Your task to perform on an android device: Go to location settings Image 0: 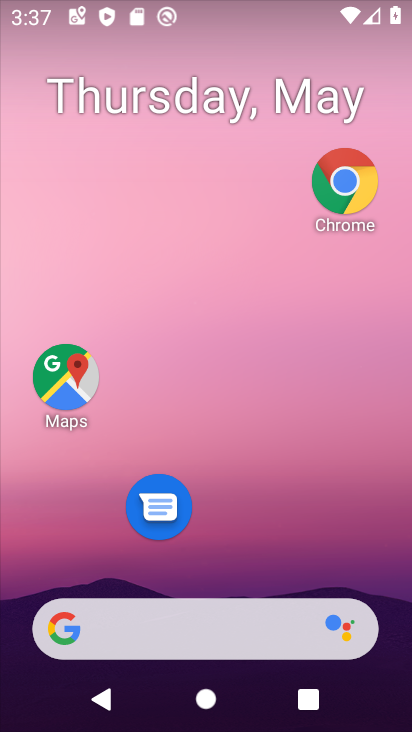
Step 0: drag from (251, 567) to (260, 130)
Your task to perform on an android device: Go to location settings Image 1: 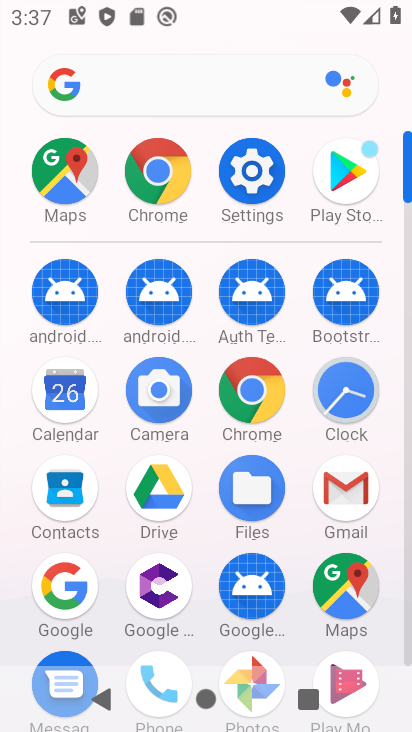
Step 1: click (248, 167)
Your task to perform on an android device: Go to location settings Image 2: 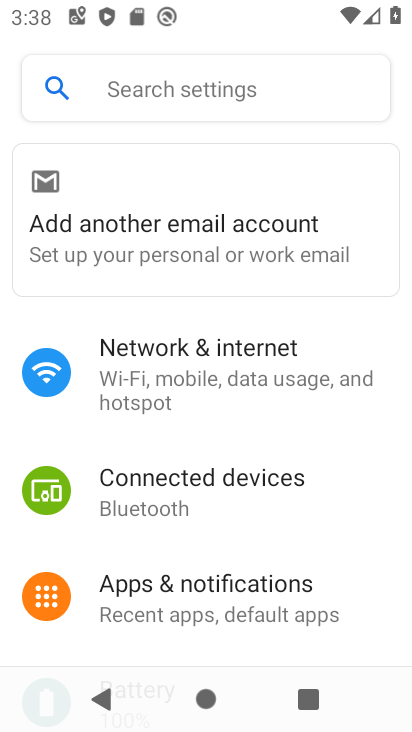
Step 2: drag from (321, 576) to (336, 177)
Your task to perform on an android device: Go to location settings Image 3: 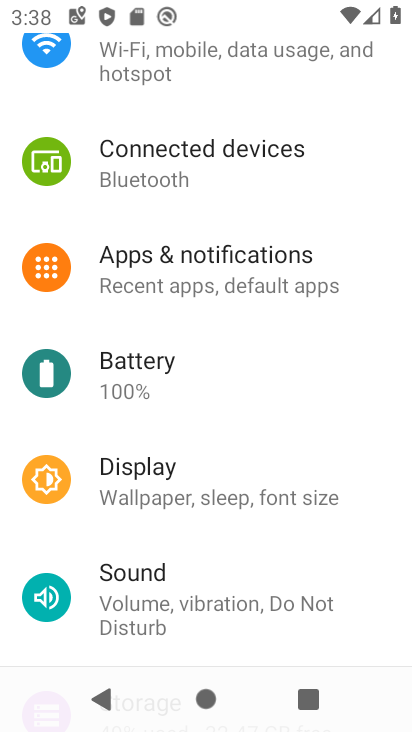
Step 3: drag from (300, 544) to (323, 224)
Your task to perform on an android device: Go to location settings Image 4: 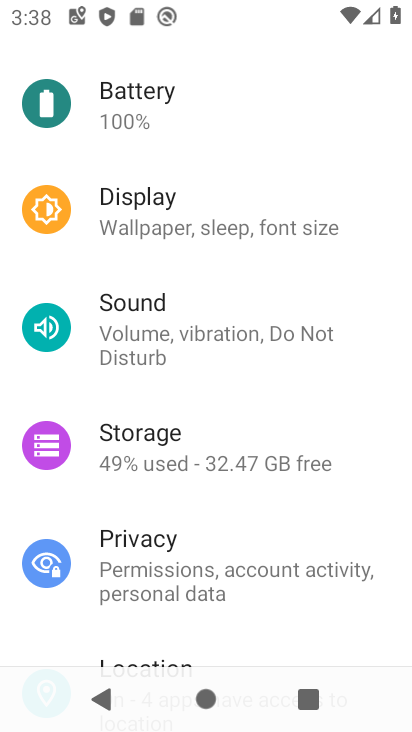
Step 4: drag from (296, 630) to (341, 203)
Your task to perform on an android device: Go to location settings Image 5: 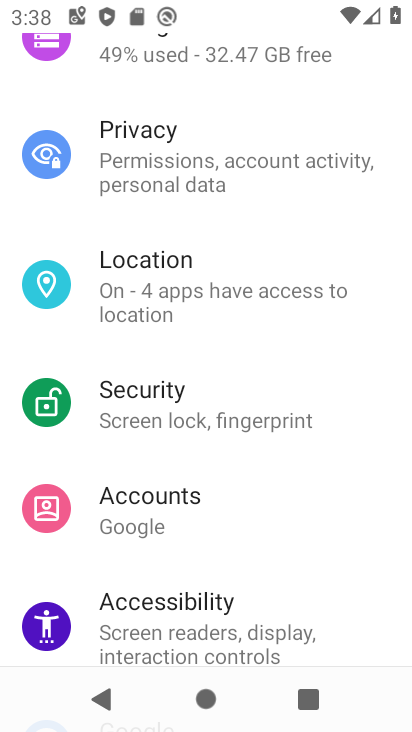
Step 5: click (144, 288)
Your task to perform on an android device: Go to location settings Image 6: 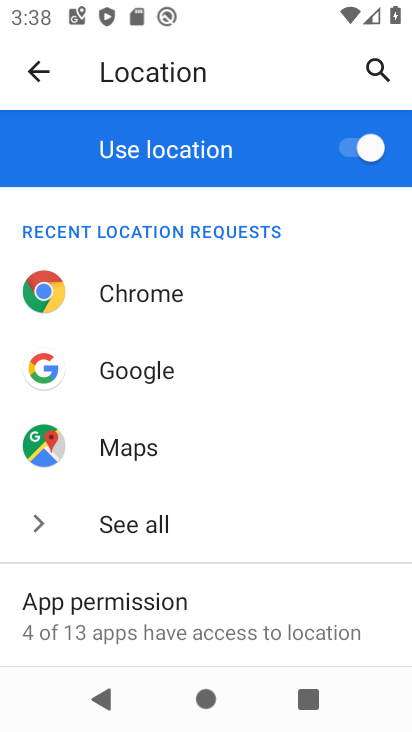
Step 6: task complete